Your task to perform on an android device: open a new tab in the chrome app Image 0: 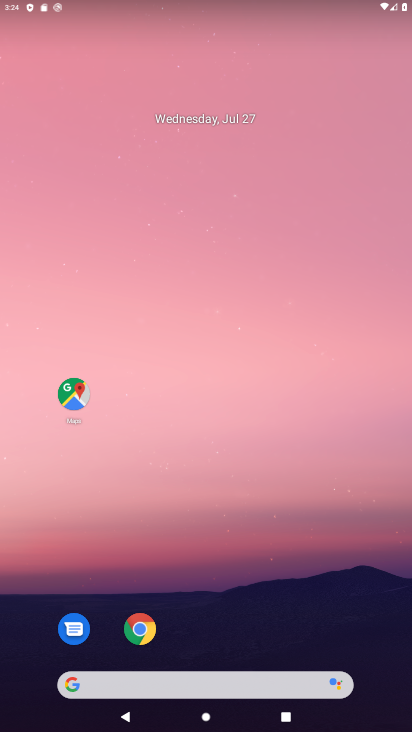
Step 0: drag from (300, 619) to (306, 58)
Your task to perform on an android device: open a new tab in the chrome app Image 1: 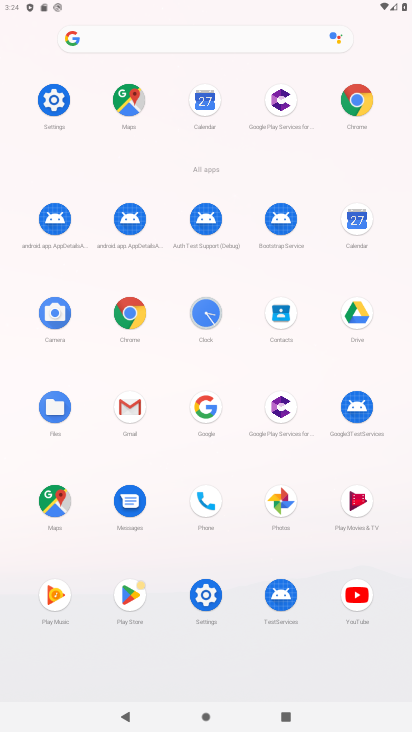
Step 1: click (361, 97)
Your task to perform on an android device: open a new tab in the chrome app Image 2: 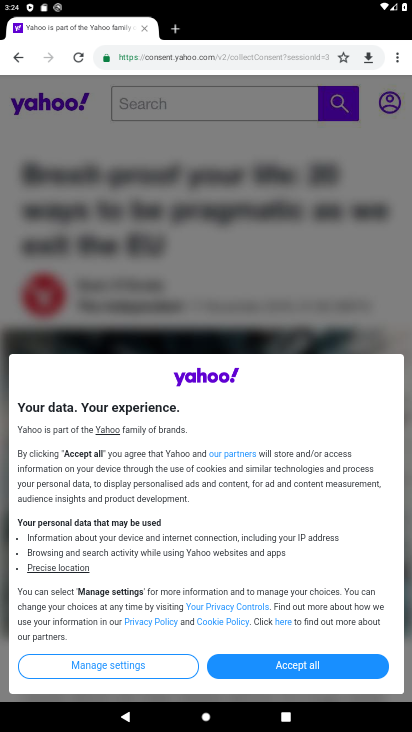
Step 2: task complete